Your task to perform on an android device: change your default location settings in chrome Image 0: 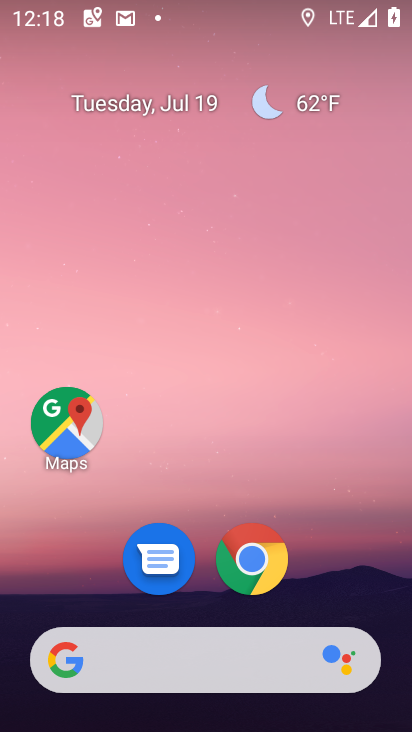
Step 0: drag from (229, 577) to (258, 146)
Your task to perform on an android device: change your default location settings in chrome Image 1: 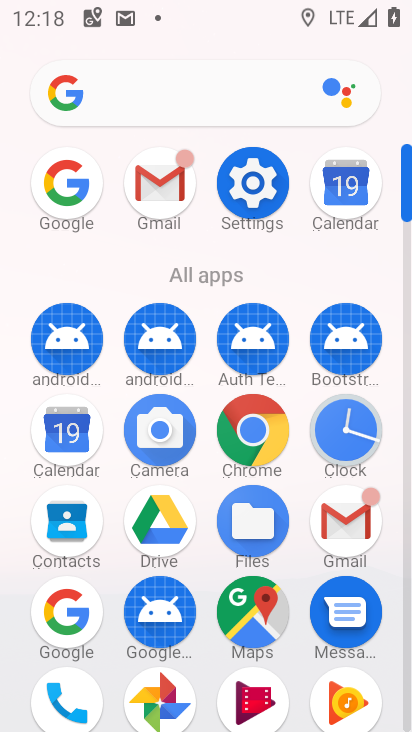
Step 1: click (256, 447)
Your task to perform on an android device: change your default location settings in chrome Image 2: 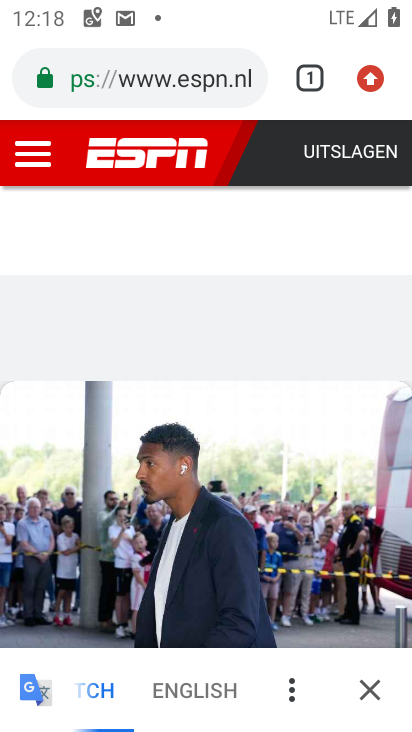
Step 2: click (374, 693)
Your task to perform on an android device: change your default location settings in chrome Image 3: 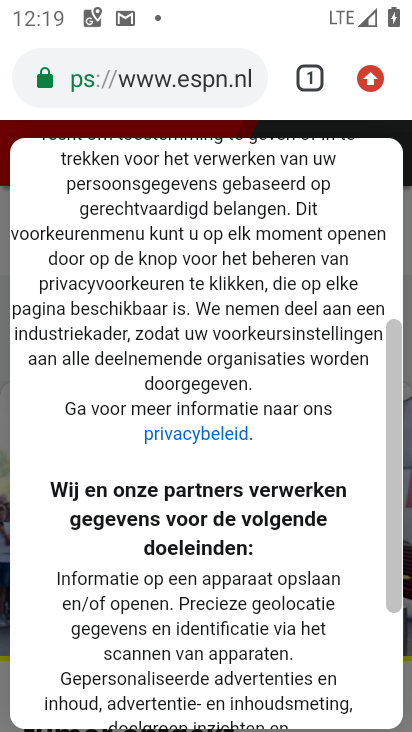
Step 3: click (376, 85)
Your task to perform on an android device: change your default location settings in chrome Image 4: 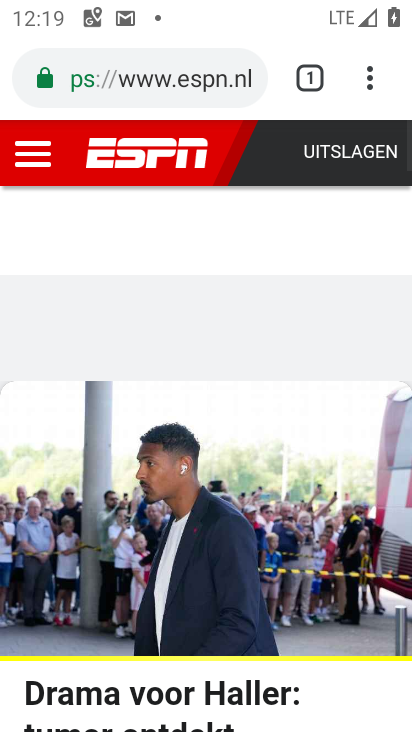
Step 4: click (372, 84)
Your task to perform on an android device: change your default location settings in chrome Image 5: 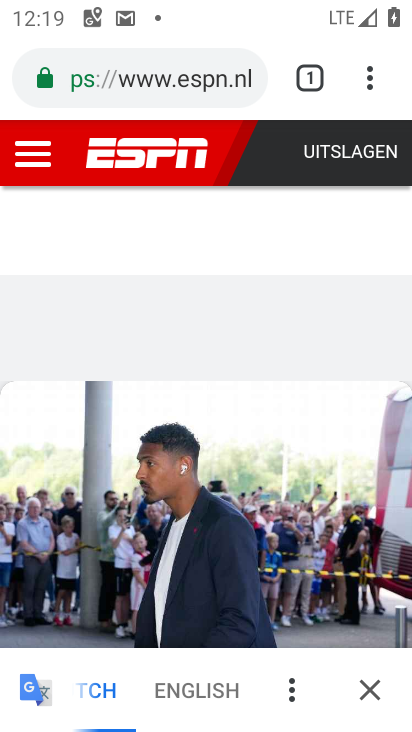
Step 5: click (372, 84)
Your task to perform on an android device: change your default location settings in chrome Image 6: 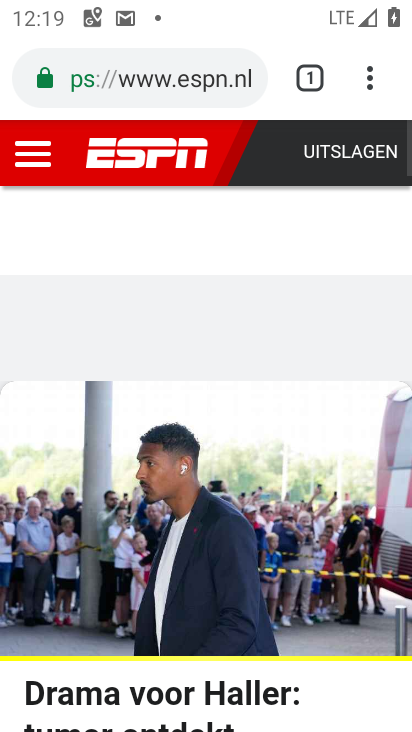
Step 6: click (372, 84)
Your task to perform on an android device: change your default location settings in chrome Image 7: 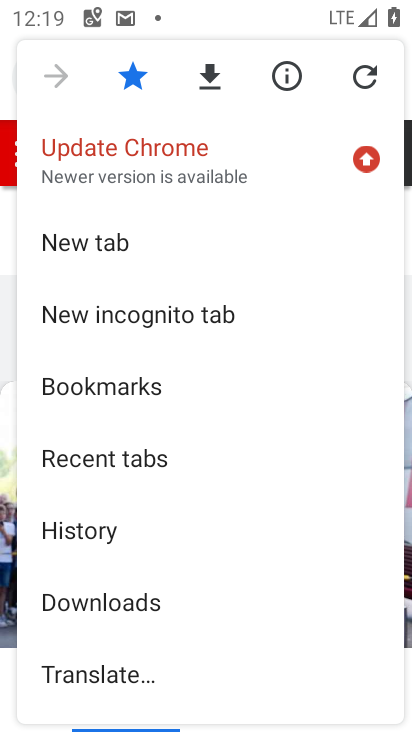
Step 7: drag from (179, 602) to (247, 195)
Your task to perform on an android device: change your default location settings in chrome Image 8: 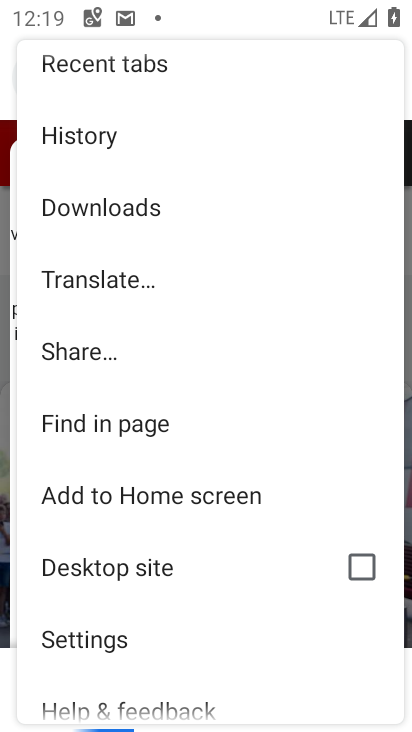
Step 8: drag from (178, 542) to (179, 317)
Your task to perform on an android device: change your default location settings in chrome Image 9: 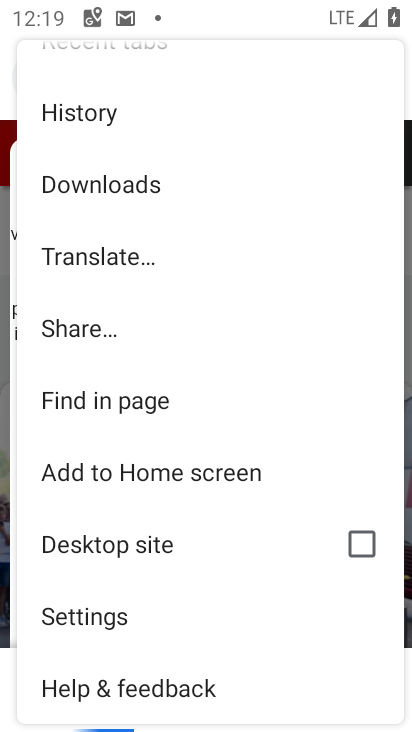
Step 9: click (56, 624)
Your task to perform on an android device: change your default location settings in chrome Image 10: 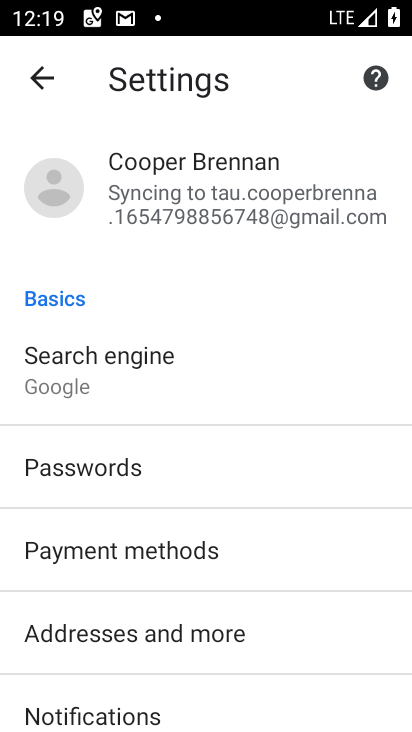
Step 10: drag from (147, 547) to (192, 261)
Your task to perform on an android device: change your default location settings in chrome Image 11: 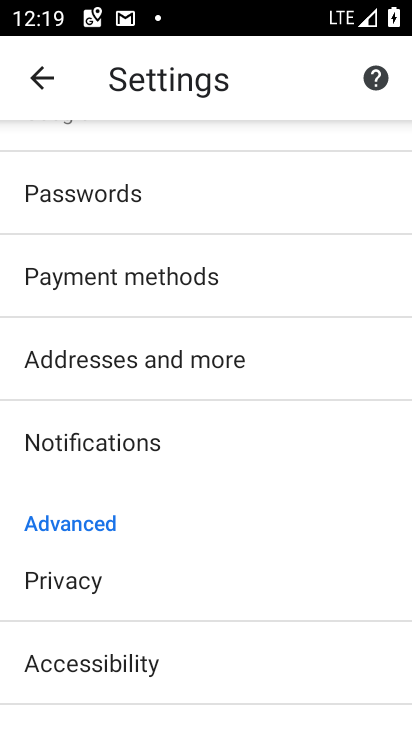
Step 11: drag from (121, 539) to (141, 355)
Your task to perform on an android device: change your default location settings in chrome Image 12: 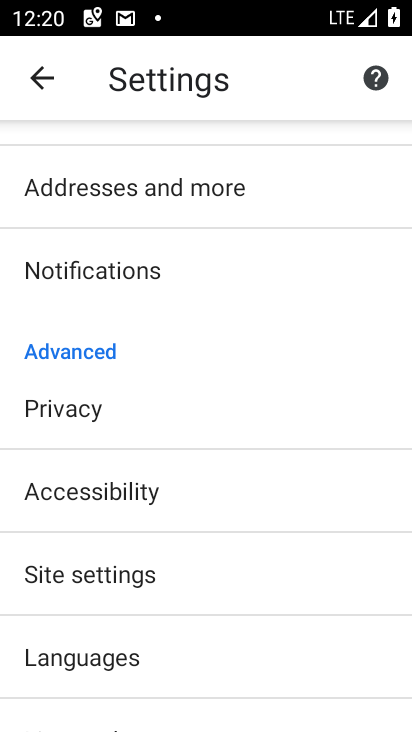
Step 12: drag from (138, 603) to (157, 454)
Your task to perform on an android device: change your default location settings in chrome Image 13: 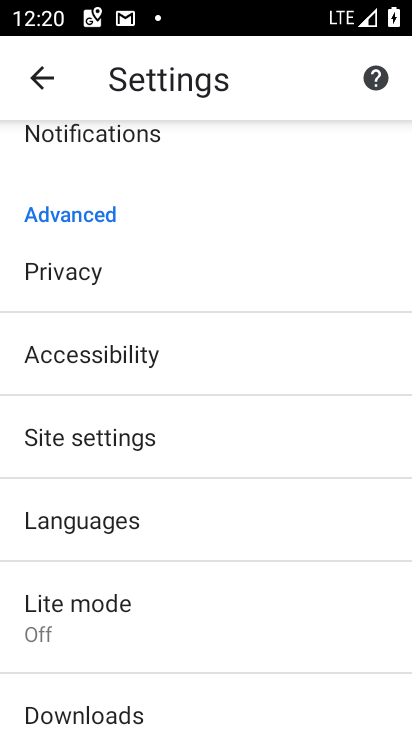
Step 13: click (127, 449)
Your task to perform on an android device: change your default location settings in chrome Image 14: 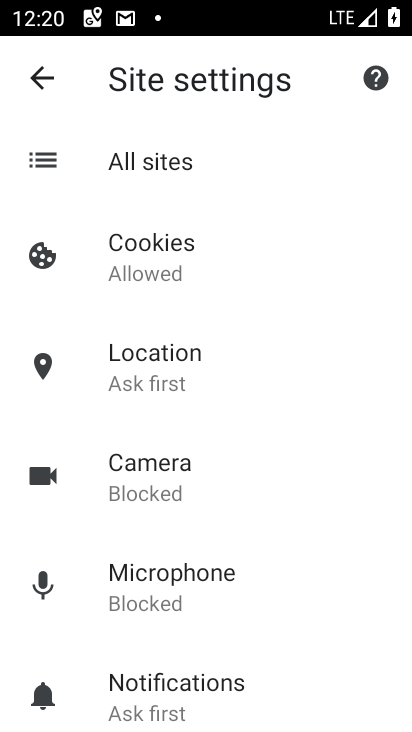
Step 14: drag from (153, 575) to (195, 288)
Your task to perform on an android device: change your default location settings in chrome Image 15: 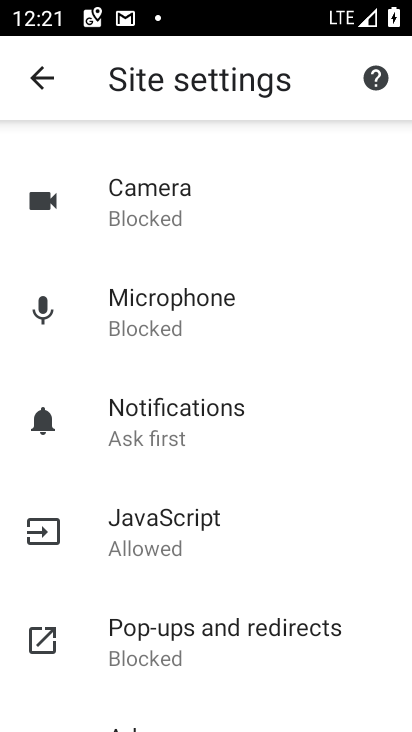
Step 15: drag from (191, 325) to (183, 623)
Your task to perform on an android device: change your default location settings in chrome Image 16: 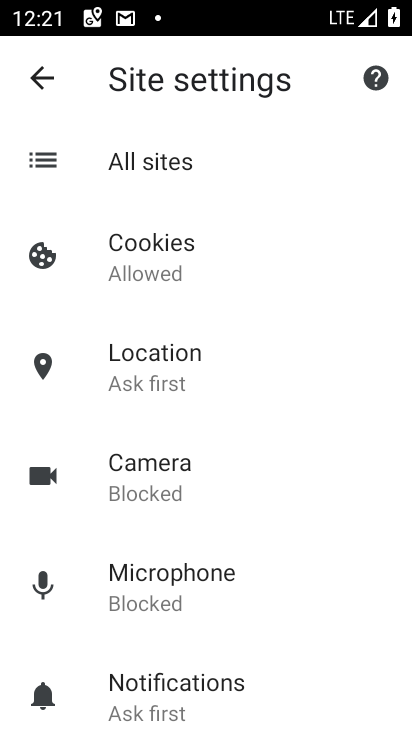
Step 16: click (153, 376)
Your task to perform on an android device: change your default location settings in chrome Image 17: 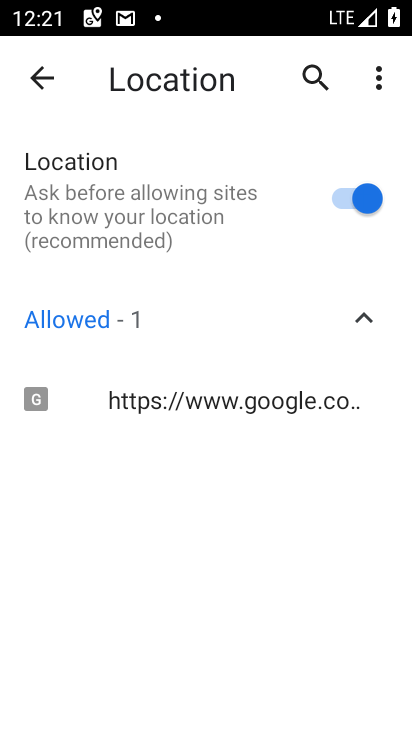
Step 17: task complete